Your task to perform on an android device: open a bookmark in the chrome app Image 0: 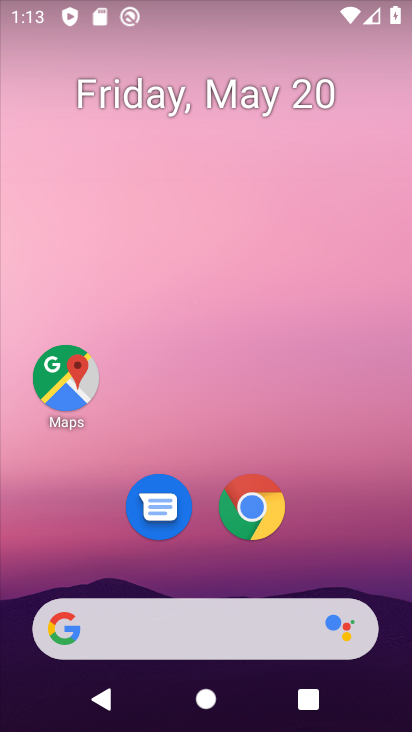
Step 0: click (260, 533)
Your task to perform on an android device: open a bookmark in the chrome app Image 1: 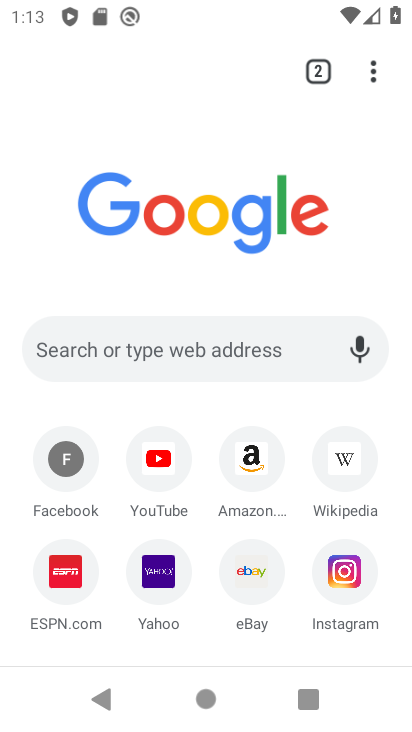
Step 1: click (374, 78)
Your task to perform on an android device: open a bookmark in the chrome app Image 2: 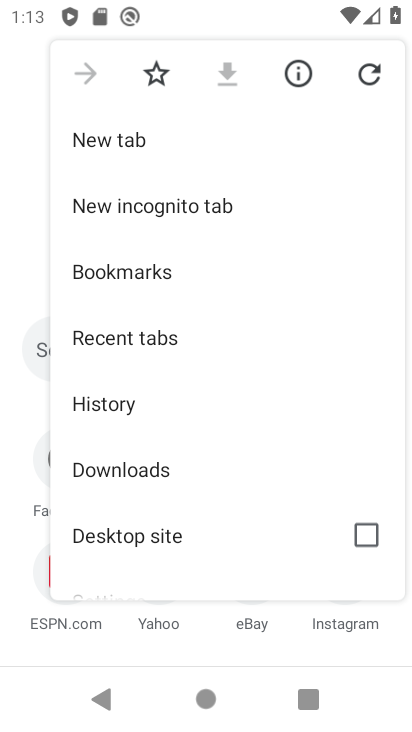
Step 2: click (119, 274)
Your task to perform on an android device: open a bookmark in the chrome app Image 3: 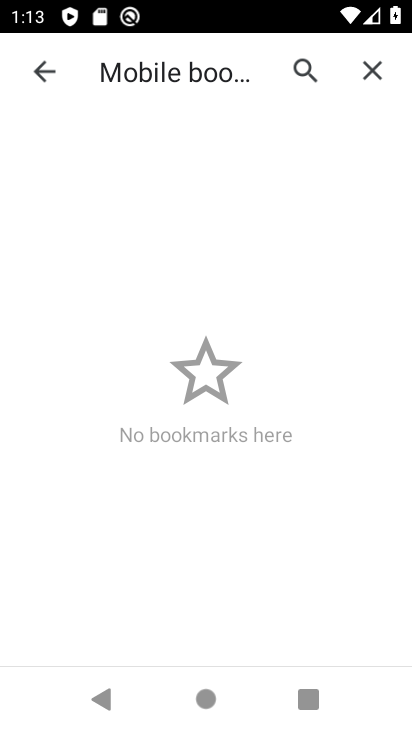
Step 3: task complete